Your task to perform on an android device: open app "Spotify" Image 0: 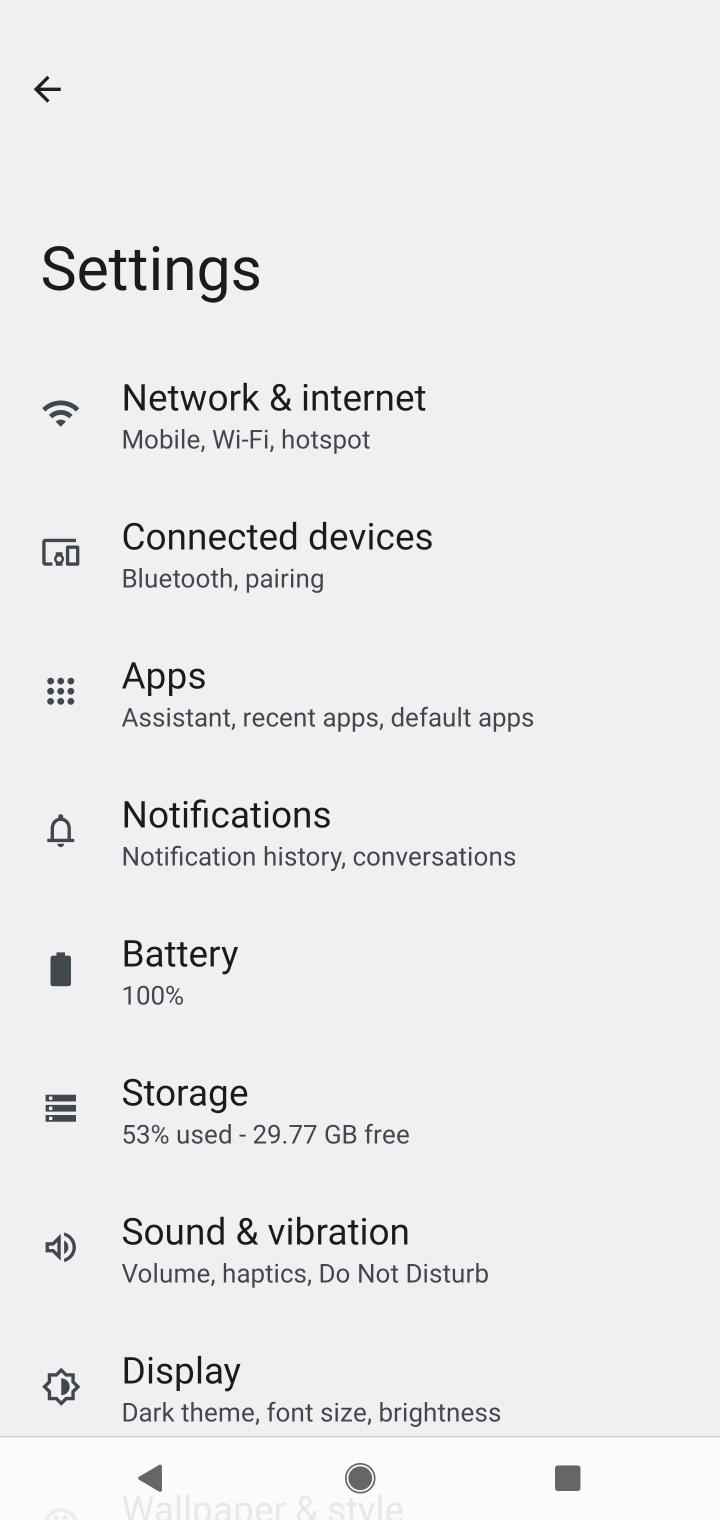
Step 0: press home button
Your task to perform on an android device: open app "Spotify" Image 1: 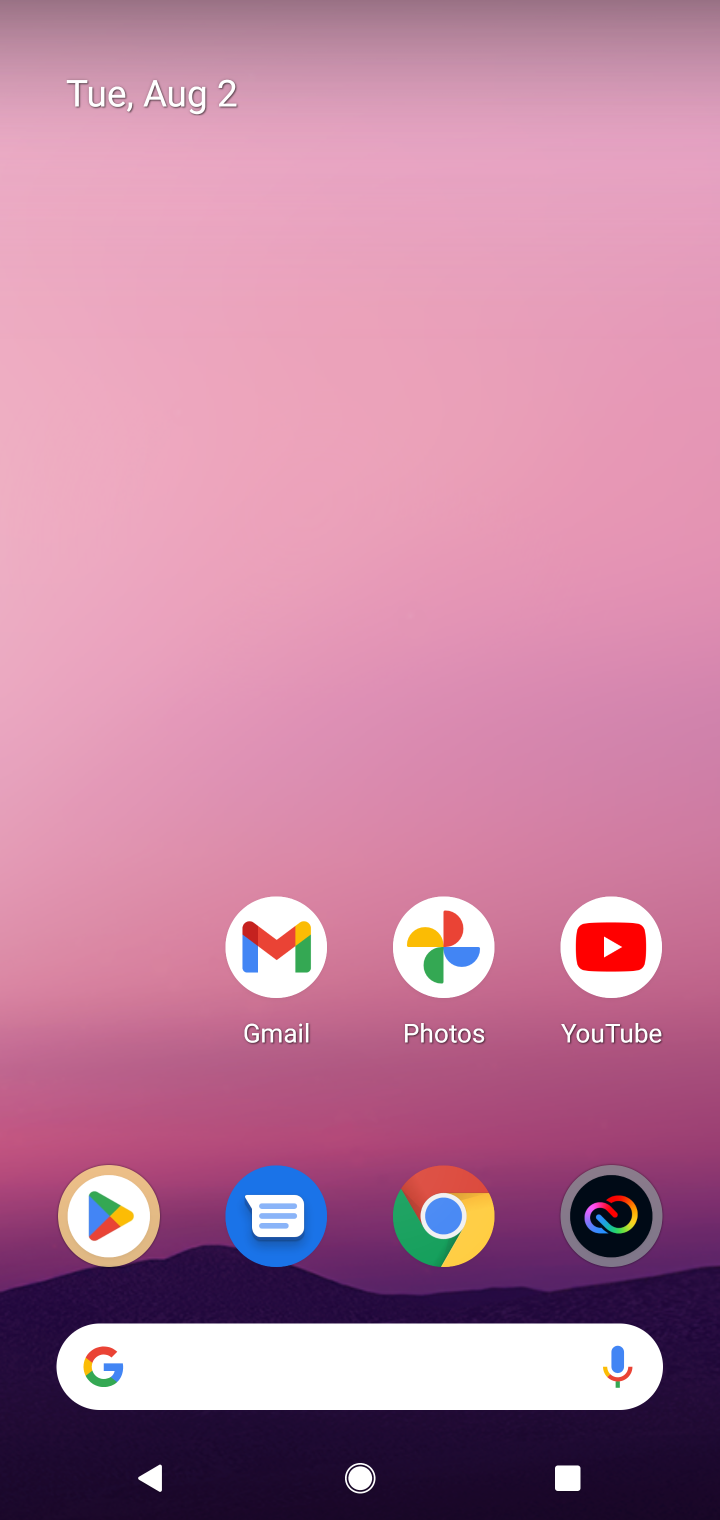
Step 1: drag from (189, 1296) to (330, 59)
Your task to perform on an android device: open app "Spotify" Image 2: 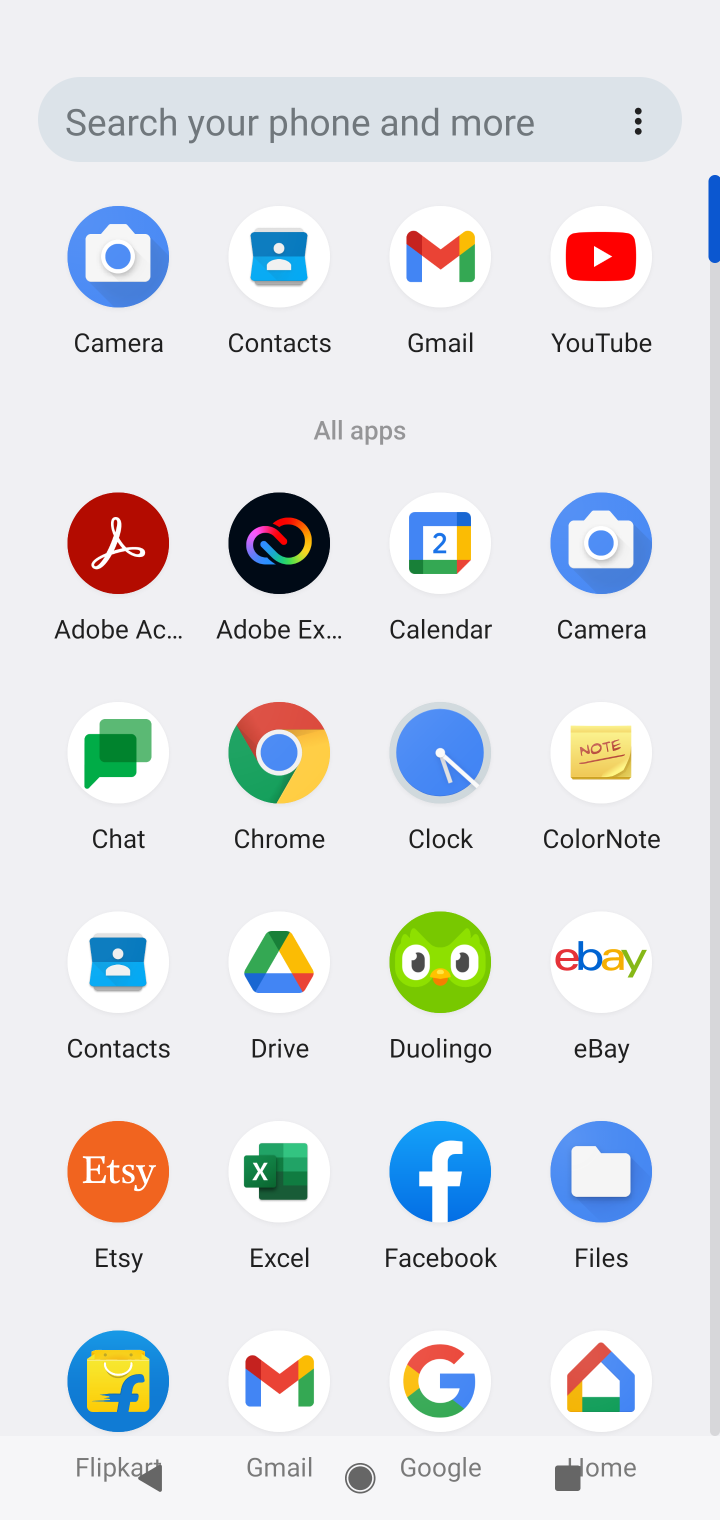
Step 2: click (345, 106)
Your task to perform on an android device: open app "Spotify" Image 3: 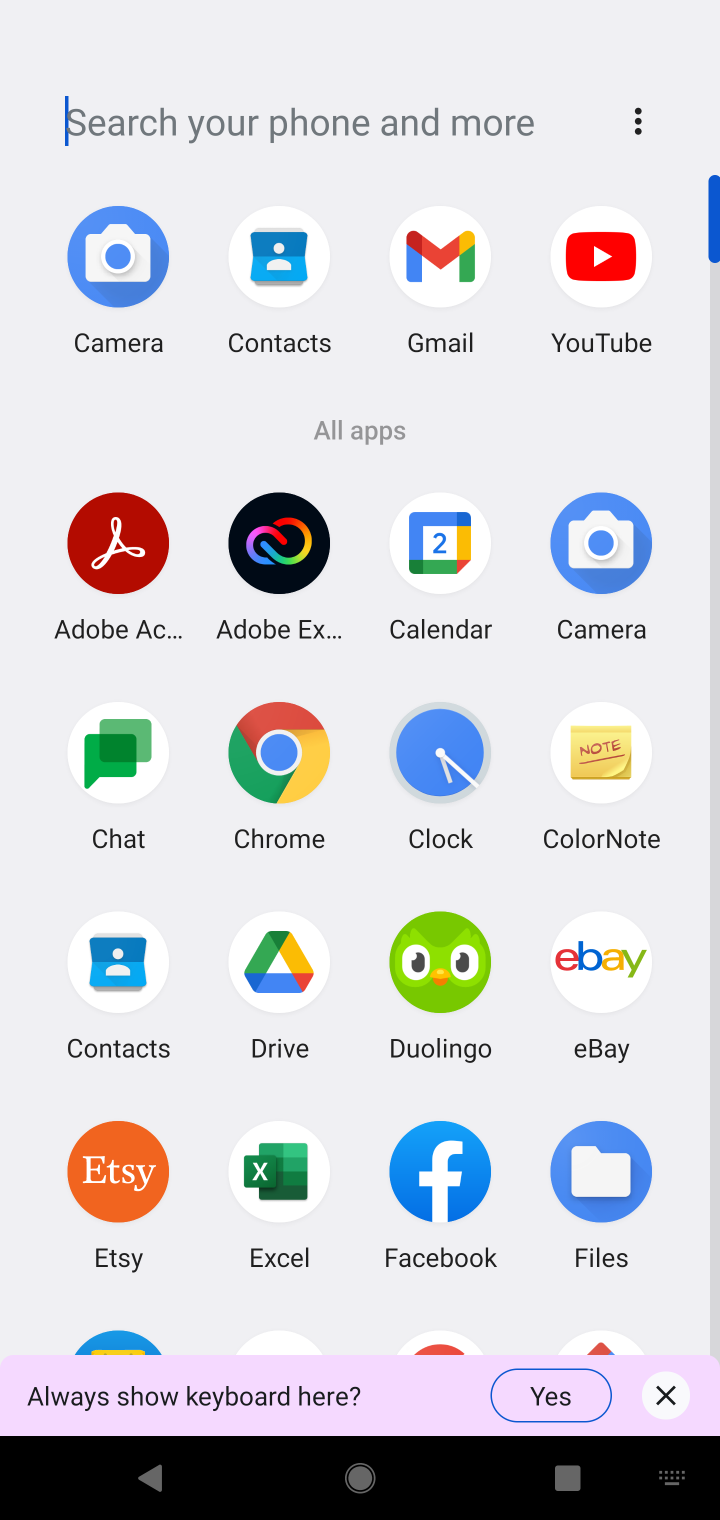
Step 3: type "spotify"
Your task to perform on an android device: open app "Spotify" Image 4: 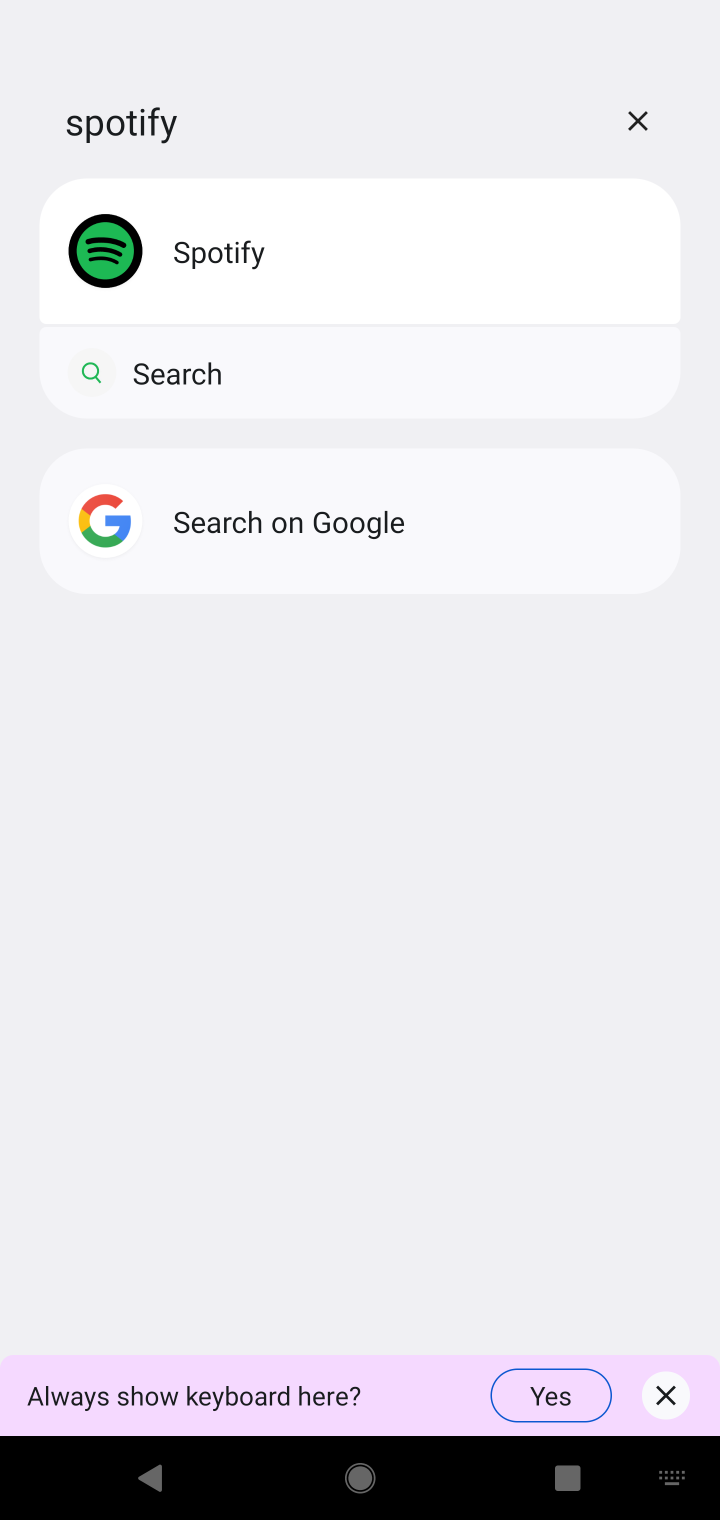
Step 4: click (361, 230)
Your task to perform on an android device: open app "Spotify" Image 5: 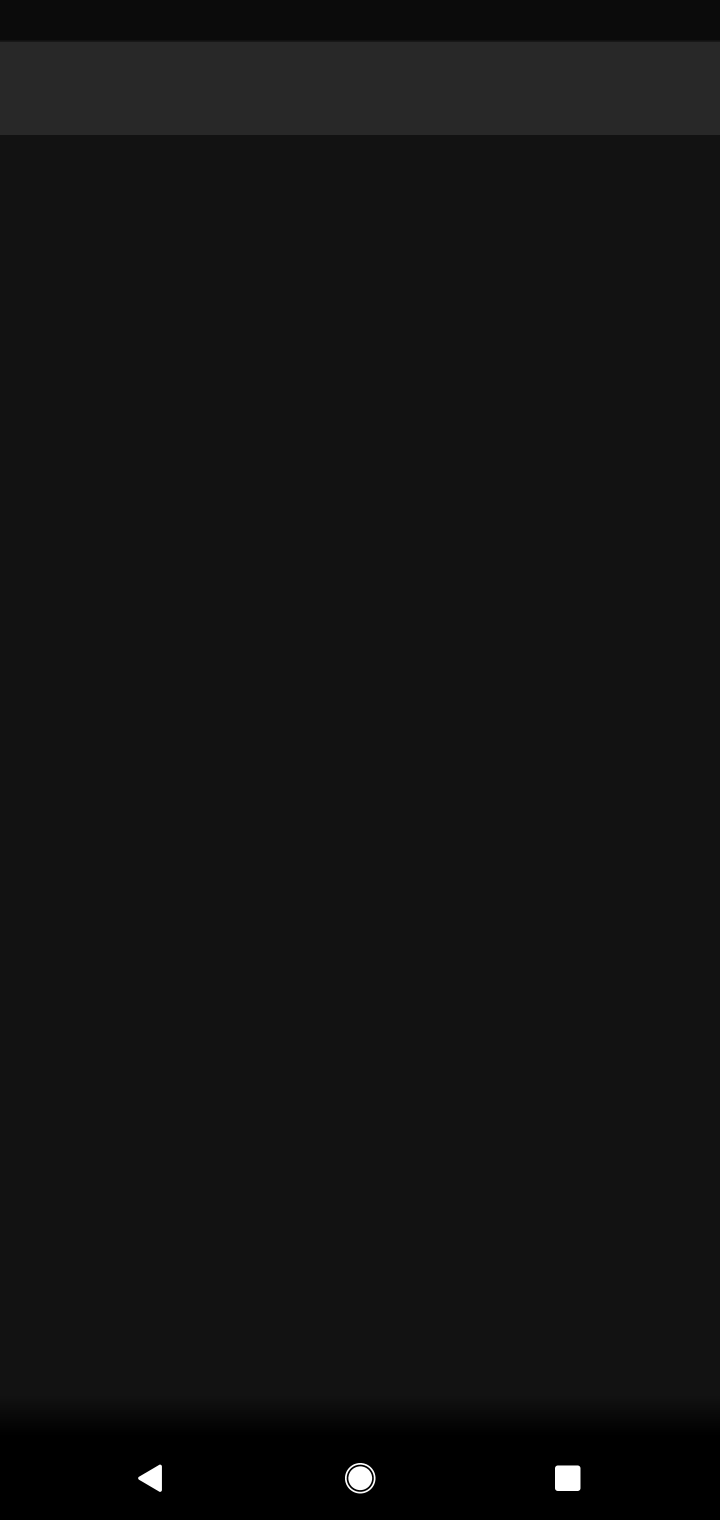
Step 5: task complete